Your task to perform on an android device: turn on wifi Image 0: 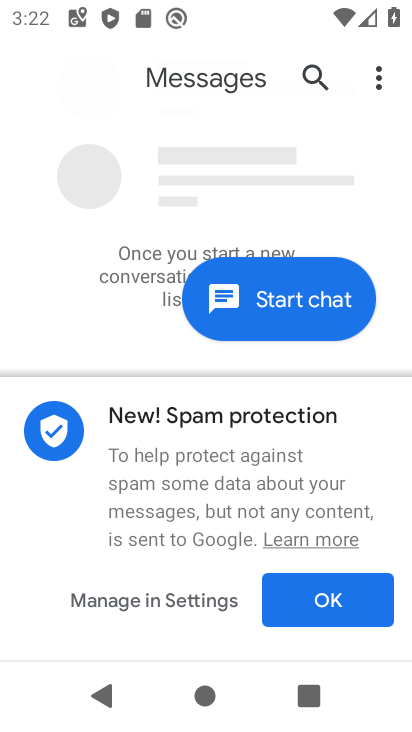
Step 0: press back button
Your task to perform on an android device: turn on wifi Image 1: 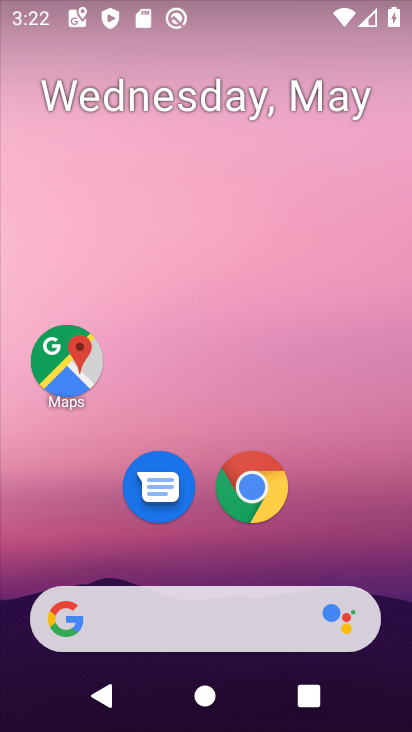
Step 1: drag from (332, 509) to (259, 0)
Your task to perform on an android device: turn on wifi Image 2: 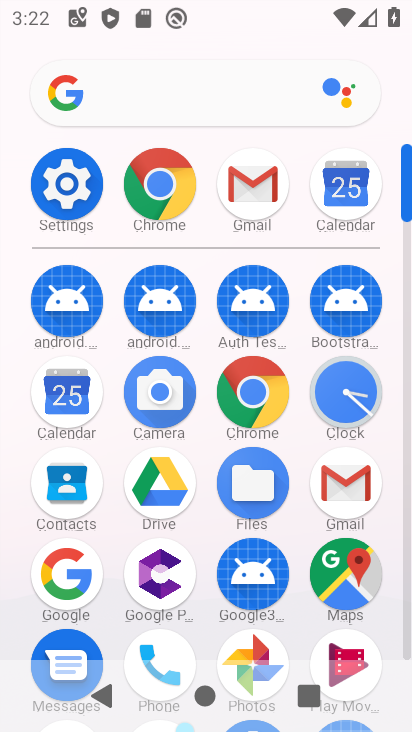
Step 2: click (66, 181)
Your task to perform on an android device: turn on wifi Image 3: 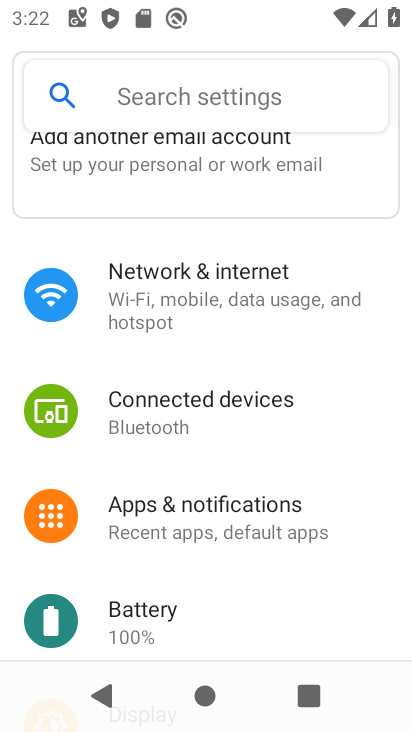
Step 3: drag from (306, 243) to (260, 454)
Your task to perform on an android device: turn on wifi Image 4: 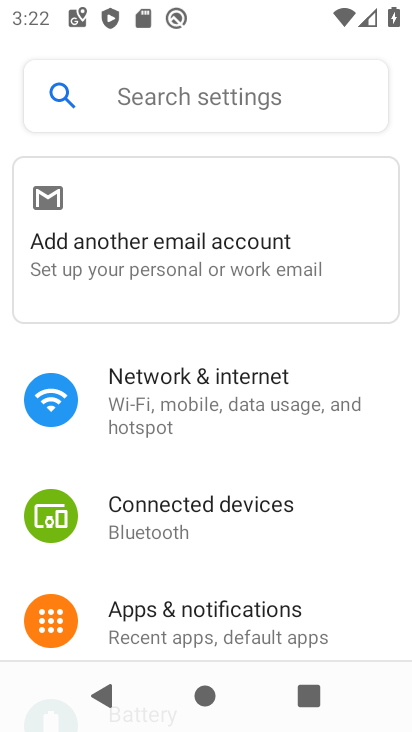
Step 4: click (252, 393)
Your task to perform on an android device: turn on wifi Image 5: 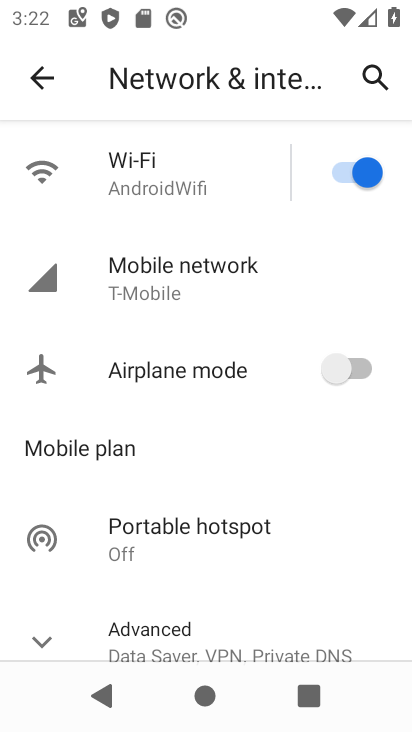
Step 5: task complete